Your task to perform on an android device: toggle wifi Image 0: 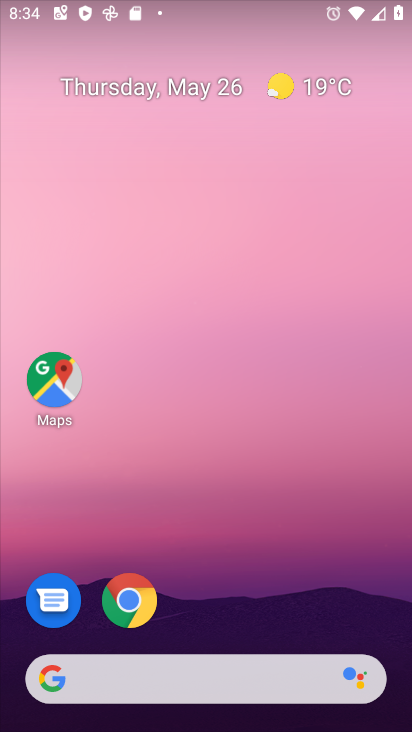
Step 0: press home button
Your task to perform on an android device: toggle wifi Image 1: 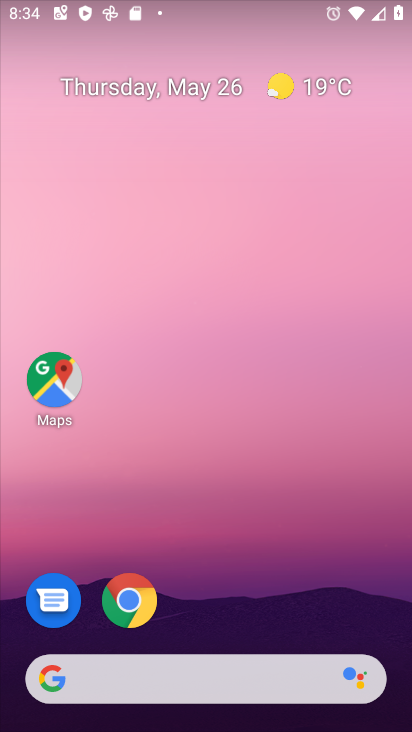
Step 1: drag from (217, 19) to (231, 324)
Your task to perform on an android device: toggle wifi Image 2: 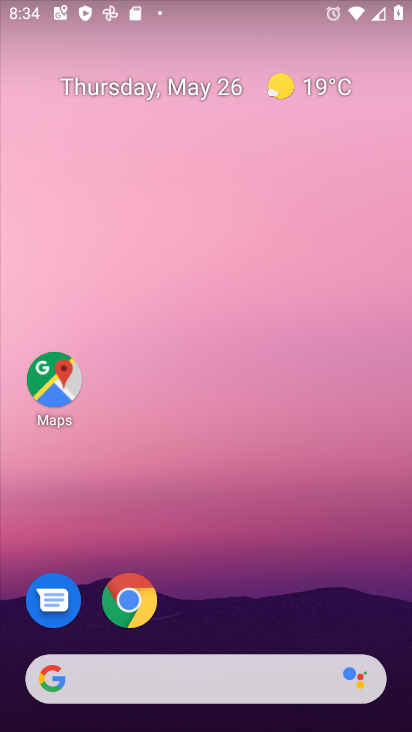
Step 2: drag from (207, 105) to (210, 326)
Your task to perform on an android device: toggle wifi Image 3: 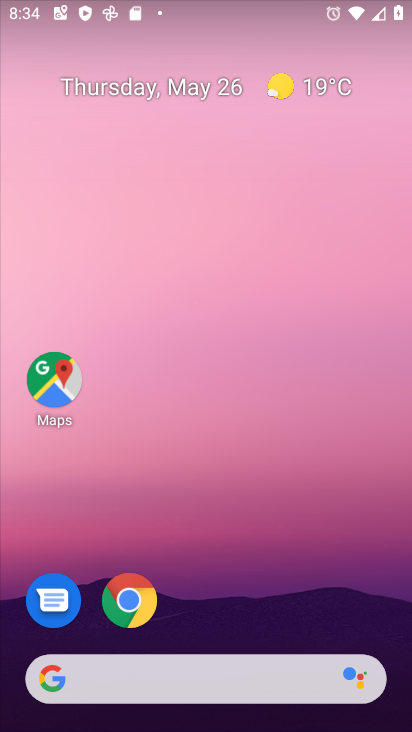
Step 3: drag from (236, 14) to (238, 274)
Your task to perform on an android device: toggle wifi Image 4: 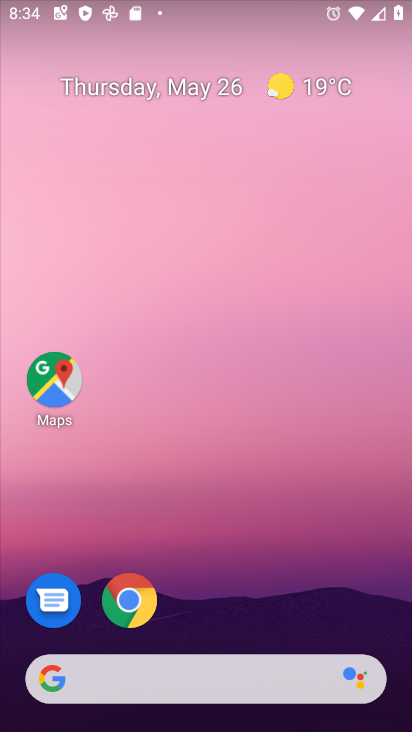
Step 4: drag from (207, 4) to (210, 349)
Your task to perform on an android device: toggle wifi Image 5: 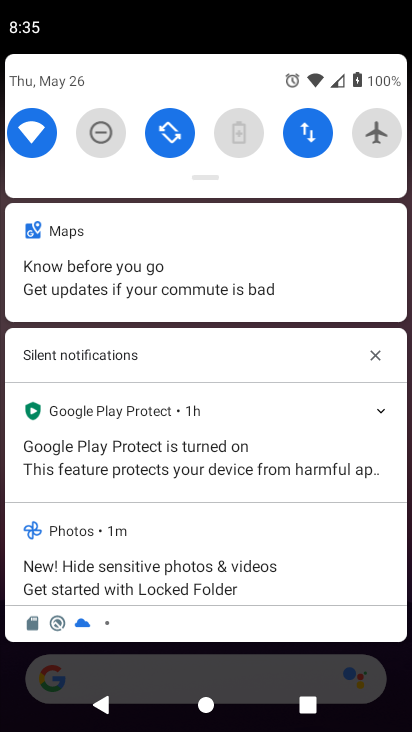
Step 5: click (38, 133)
Your task to perform on an android device: toggle wifi Image 6: 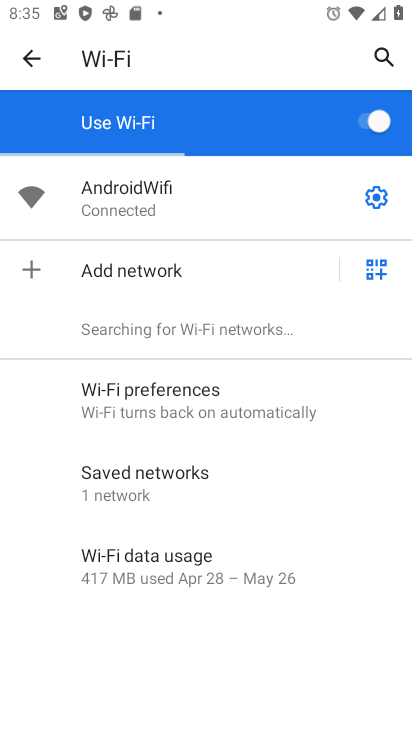
Step 6: click (376, 123)
Your task to perform on an android device: toggle wifi Image 7: 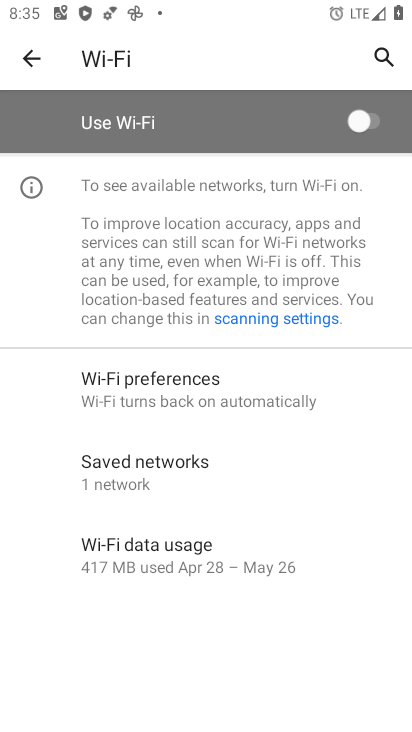
Step 7: task complete